Your task to perform on an android device: Go to Reddit.com Image 0: 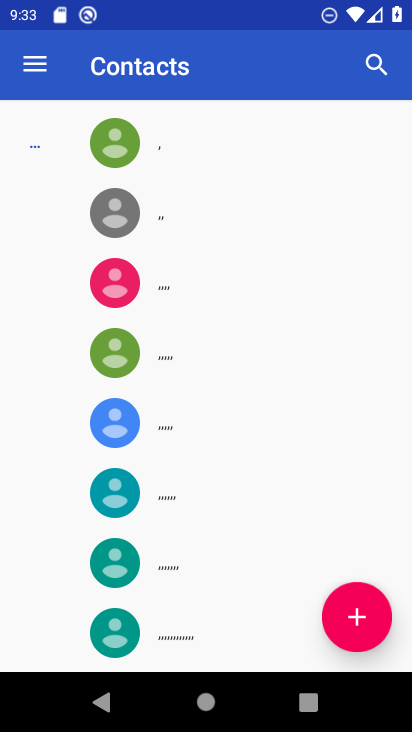
Step 0: press home button
Your task to perform on an android device: Go to Reddit.com Image 1: 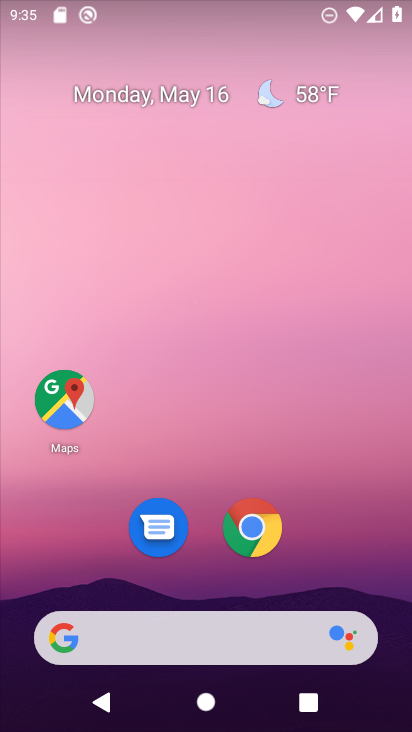
Step 1: click (257, 523)
Your task to perform on an android device: Go to Reddit.com Image 2: 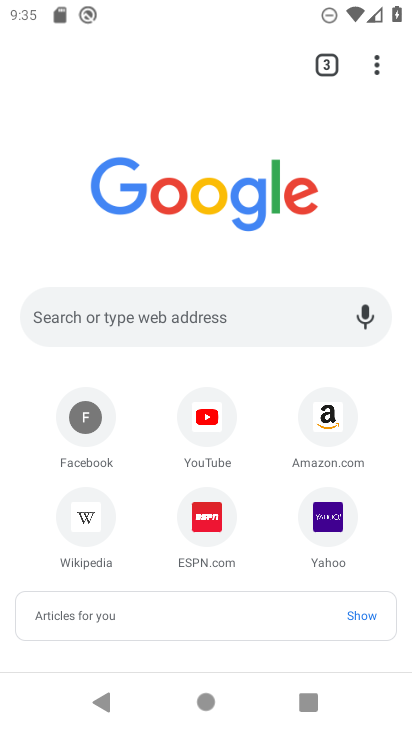
Step 2: click (178, 312)
Your task to perform on an android device: Go to Reddit.com Image 3: 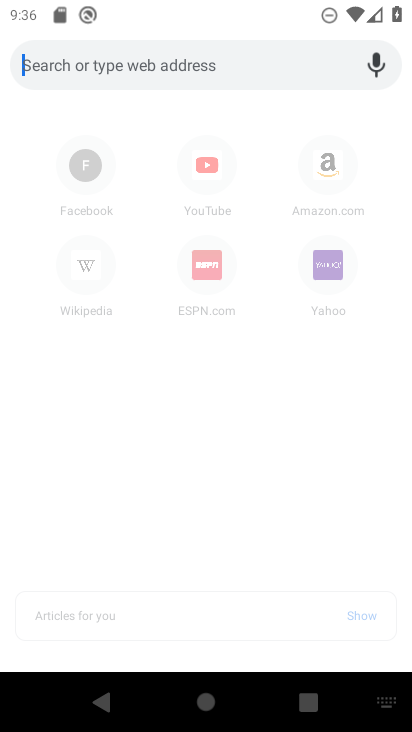
Step 3: type "Reddit.com"
Your task to perform on an android device: Go to Reddit.com Image 4: 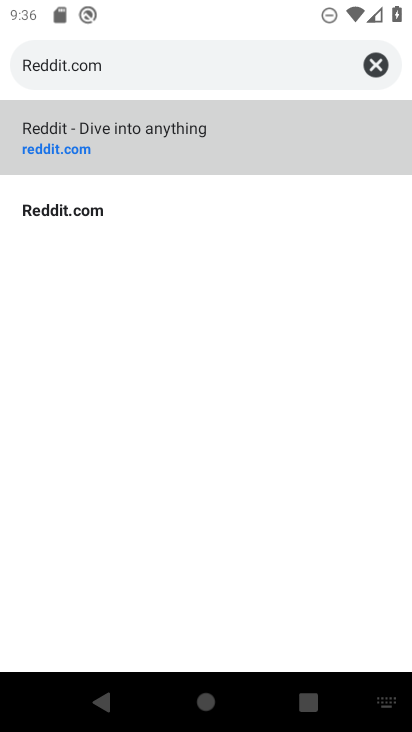
Step 4: click (65, 206)
Your task to perform on an android device: Go to Reddit.com Image 5: 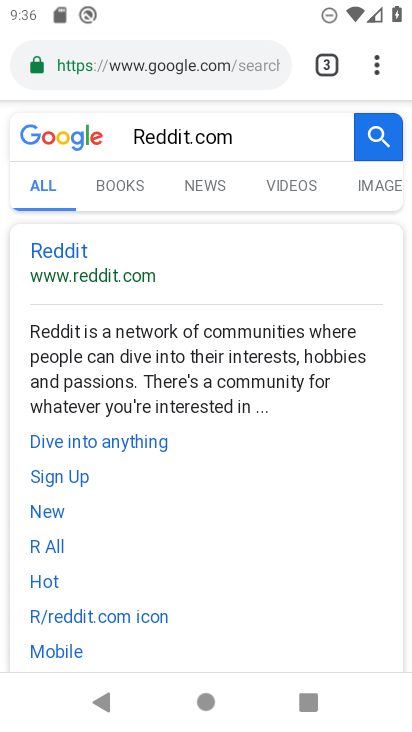
Step 5: task complete